Your task to perform on an android device: search for starred emails in the gmail app Image 0: 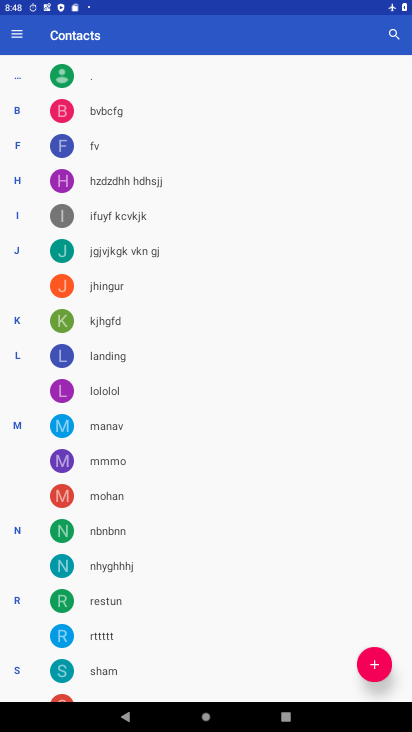
Step 0: press home button
Your task to perform on an android device: search for starred emails in the gmail app Image 1: 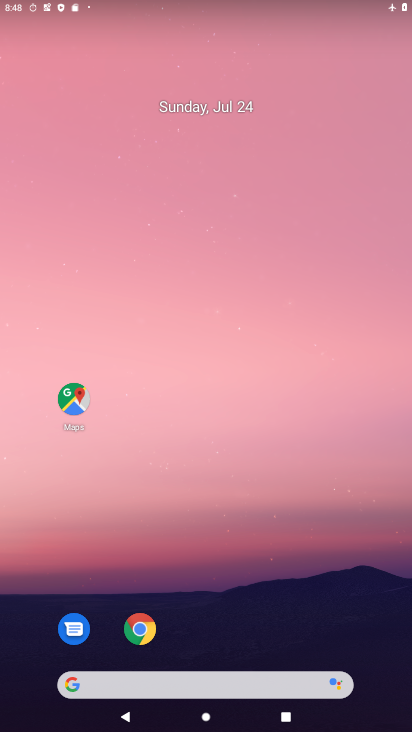
Step 1: drag from (209, 672) to (217, 181)
Your task to perform on an android device: search for starred emails in the gmail app Image 2: 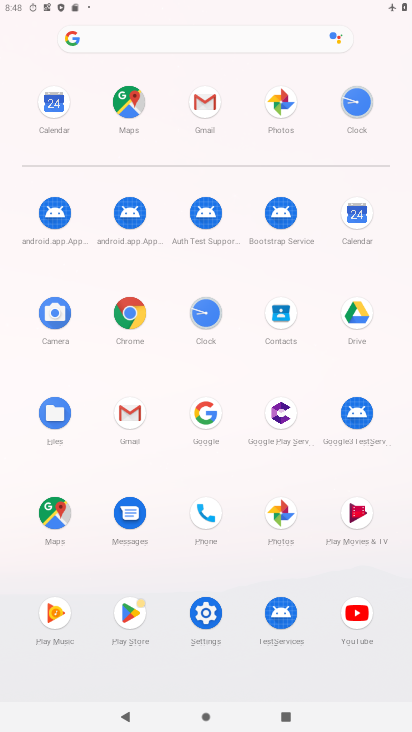
Step 2: click (136, 432)
Your task to perform on an android device: search for starred emails in the gmail app Image 3: 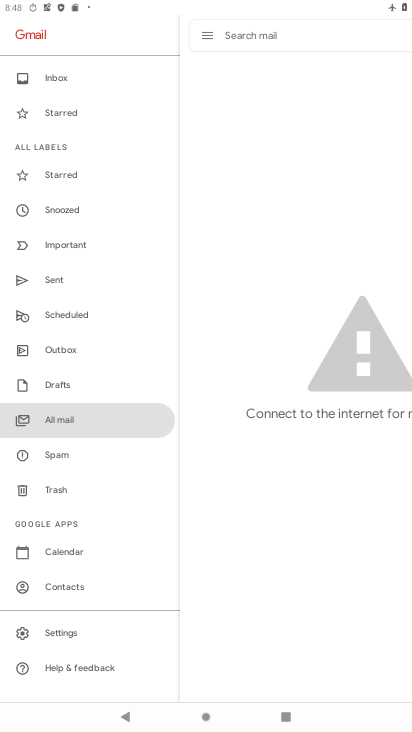
Step 3: click (65, 184)
Your task to perform on an android device: search for starred emails in the gmail app Image 4: 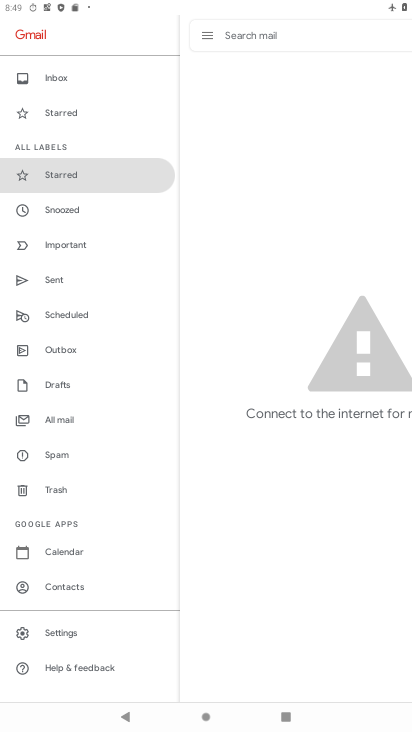
Step 4: click (93, 172)
Your task to perform on an android device: search for starred emails in the gmail app Image 5: 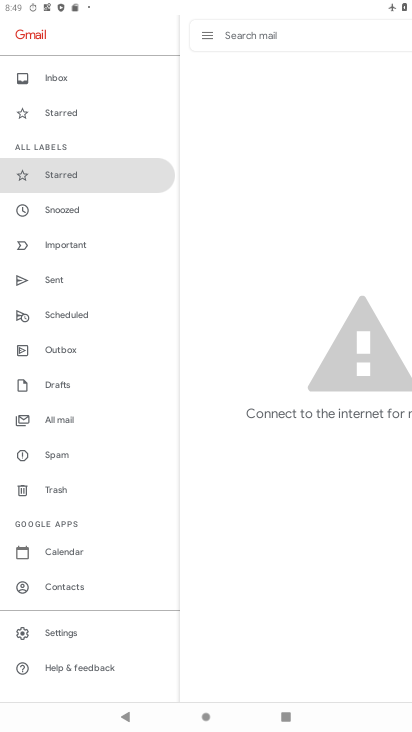
Step 5: task complete